Your task to perform on an android device: Go to sound settings Image 0: 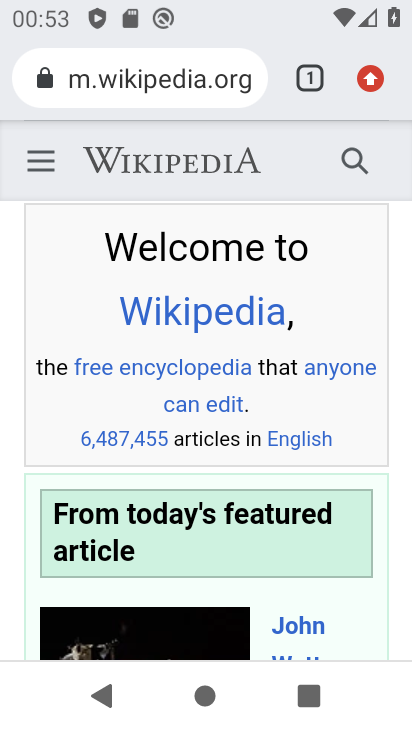
Step 0: press home button
Your task to perform on an android device: Go to sound settings Image 1: 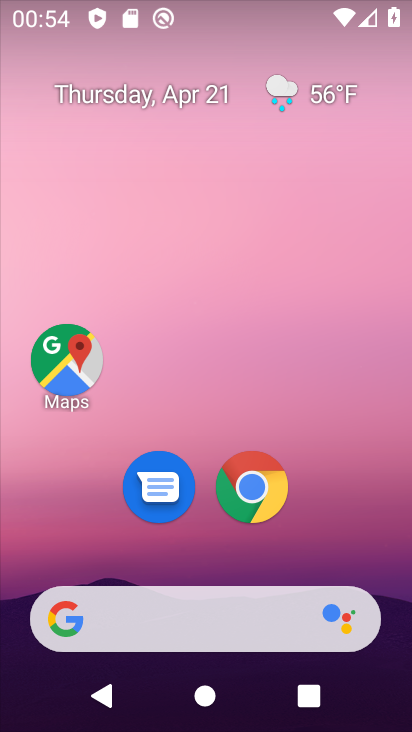
Step 1: drag from (317, 530) to (313, 158)
Your task to perform on an android device: Go to sound settings Image 2: 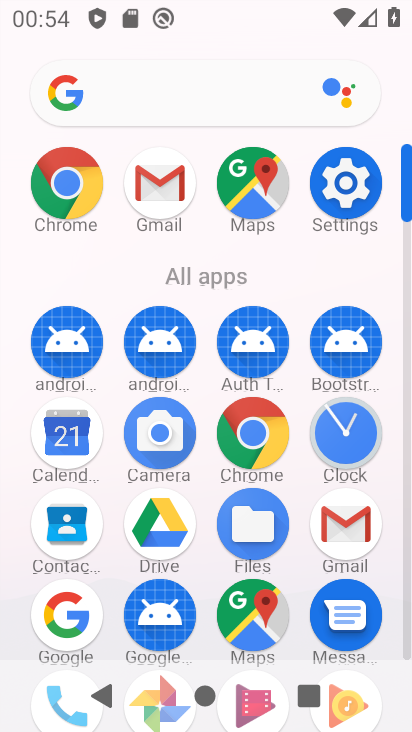
Step 2: click (345, 195)
Your task to perform on an android device: Go to sound settings Image 3: 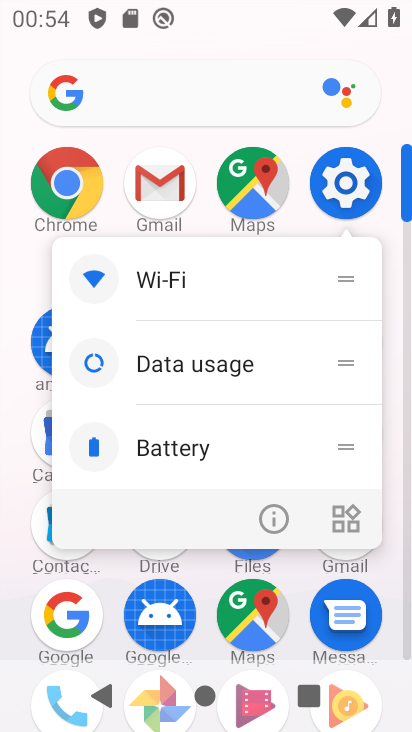
Step 3: click (345, 195)
Your task to perform on an android device: Go to sound settings Image 4: 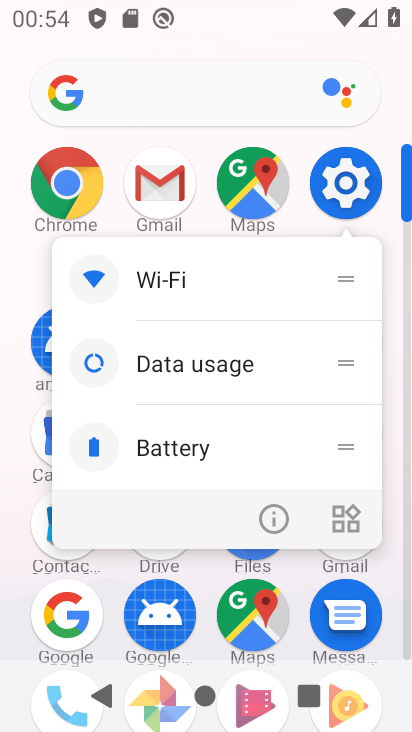
Step 4: click (345, 195)
Your task to perform on an android device: Go to sound settings Image 5: 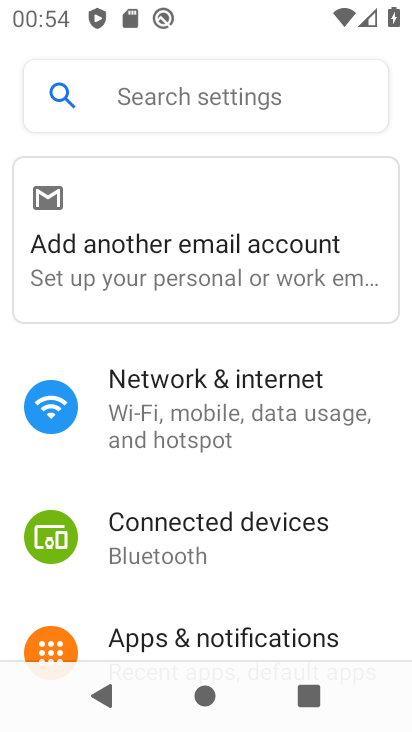
Step 5: drag from (142, 567) to (133, 478)
Your task to perform on an android device: Go to sound settings Image 6: 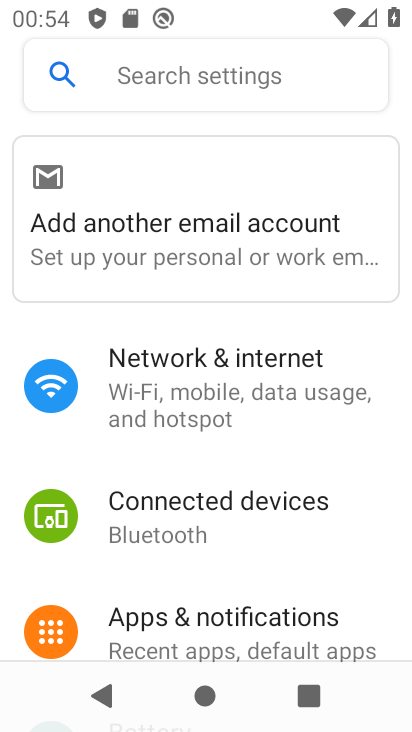
Step 6: drag from (147, 573) to (149, 474)
Your task to perform on an android device: Go to sound settings Image 7: 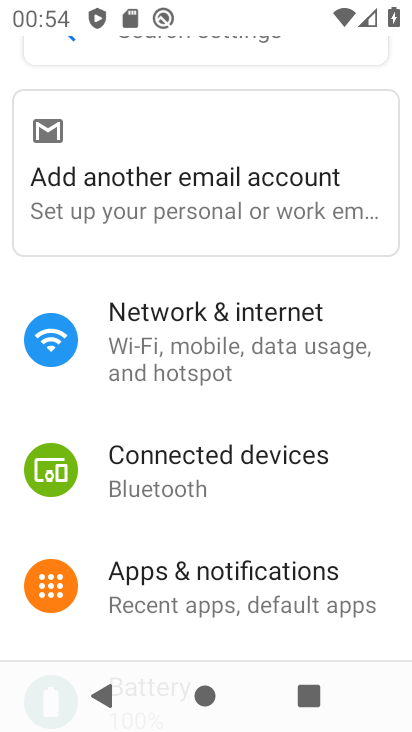
Step 7: drag from (171, 552) to (178, 454)
Your task to perform on an android device: Go to sound settings Image 8: 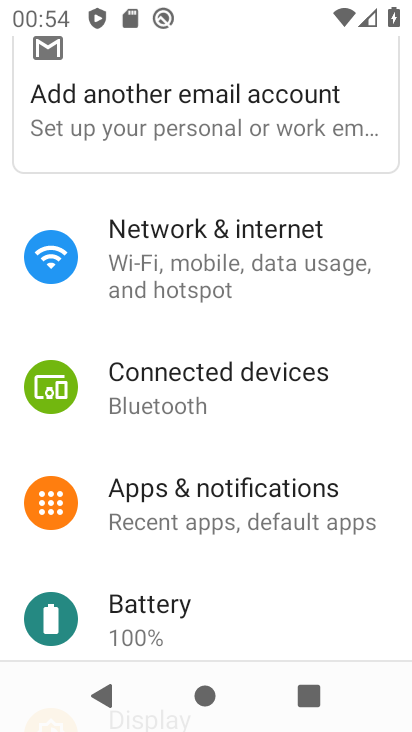
Step 8: click (200, 481)
Your task to perform on an android device: Go to sound settings Image 9: 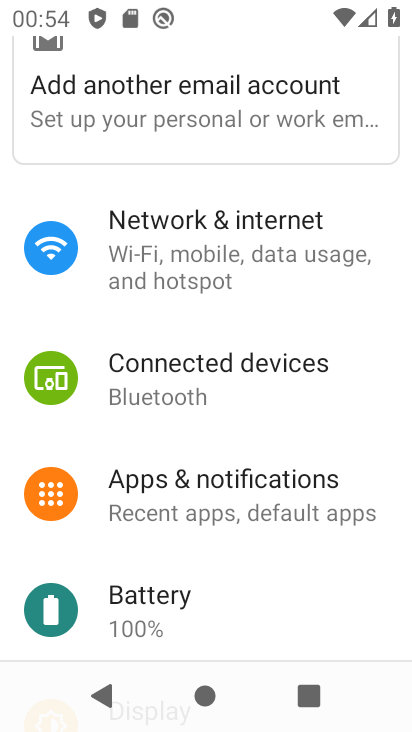
Step 9: drag from (229, 562) to (224, 451)
Your task to perform on an android device: Go to sound settings Image 10: 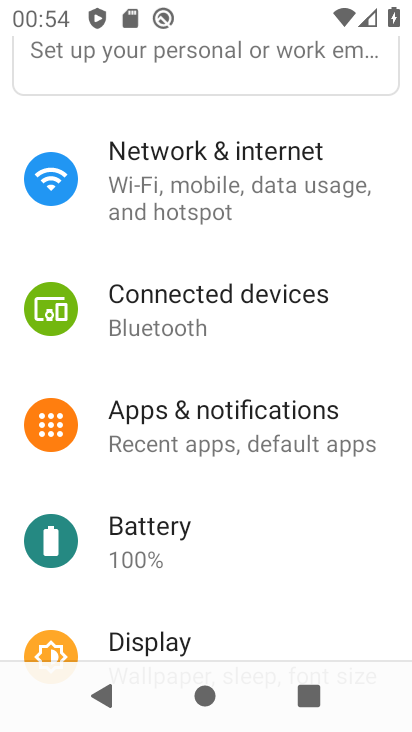
Step 10: drag from (205, 523) to (208, 436)
Your task to perform on an android device: Go to sound settings Image 11: 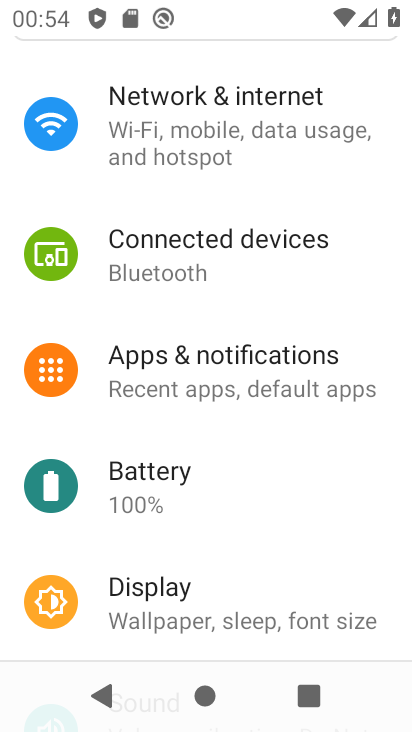
Step 11: drag from (192, 538) to (190, 444)
Your task to perform on an android device: Go to sound settings Image 12: 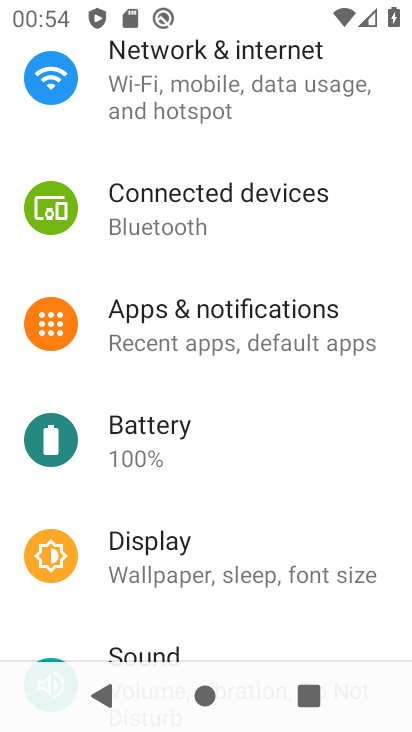
Step 12: drag from (193, 542) to (193, 443)
Your task to perform on an android device: Go to sound settings Image 13: 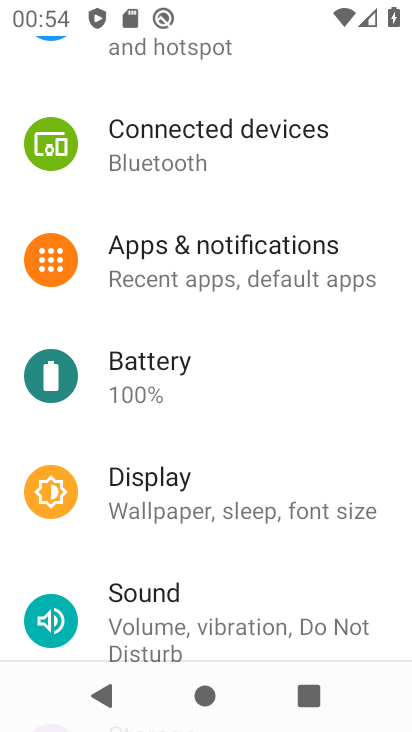
Step 13: click (217, 620)
Your task to perform on an android device: Go to sound settings Image 14: 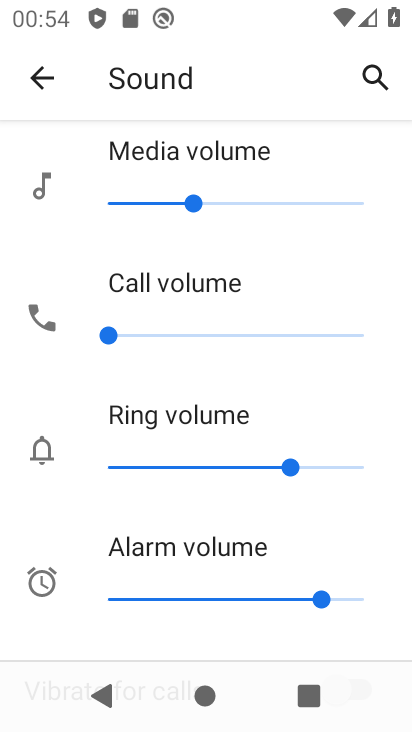
Step 14: task complete